Your task to perform on an android device: Open display settings Image 0: 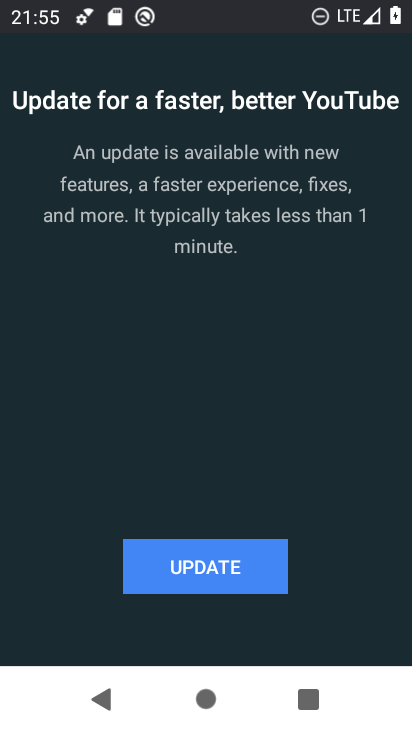
Step 0: press home button
Your task to perform on an android device: Open display settings Image 1: 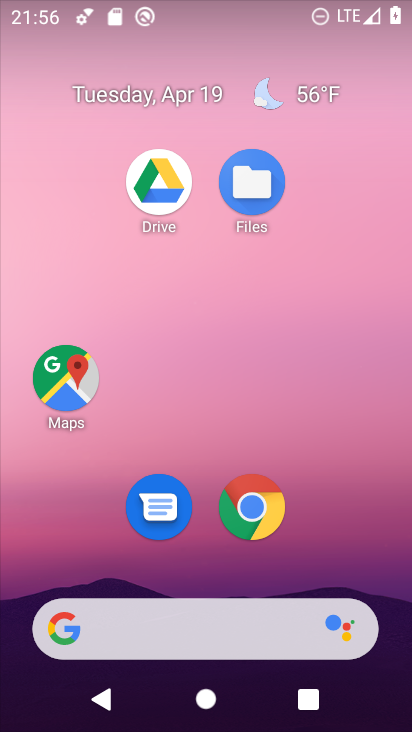
Step 1: drag from (325, 512) to (337, 74)
Your task to perform on an android device: Open display settings Image 2: 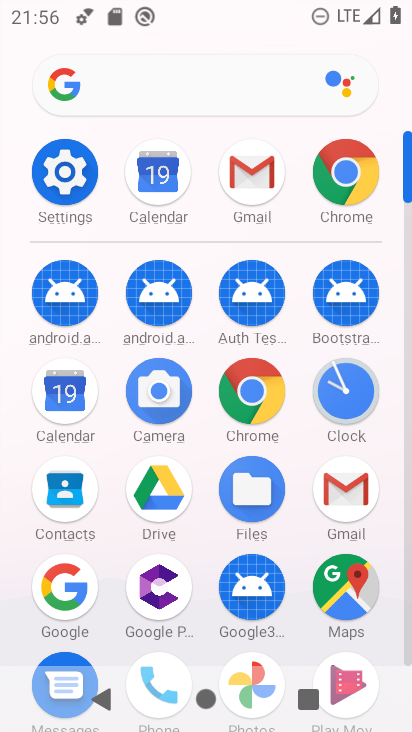
Step 2: click (73, 174)
Your task to perform on an android device: Open display settings Image 3: 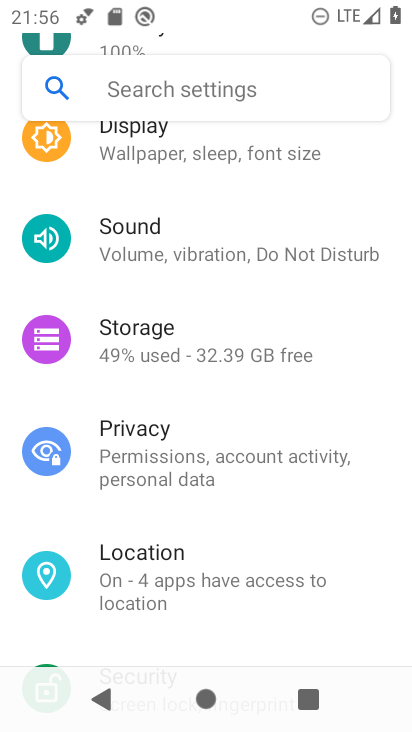
Step 3: click (220, 146)
Your task to perform on an android device: Open display settings Image 4: 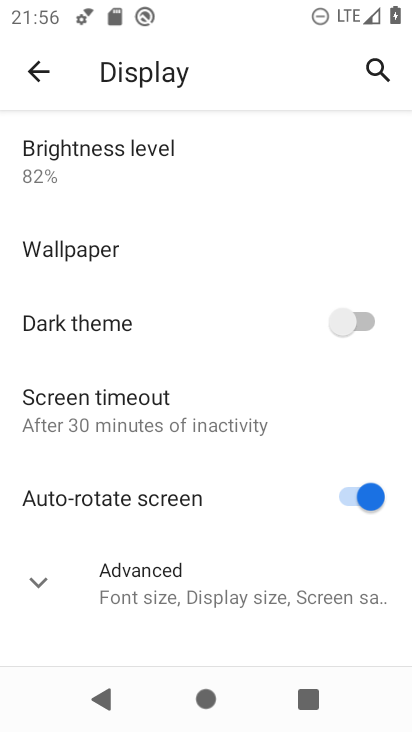
Step 4: task complete